Your task to perform on an android device: Go to calendar. Show me events next week Image 0: 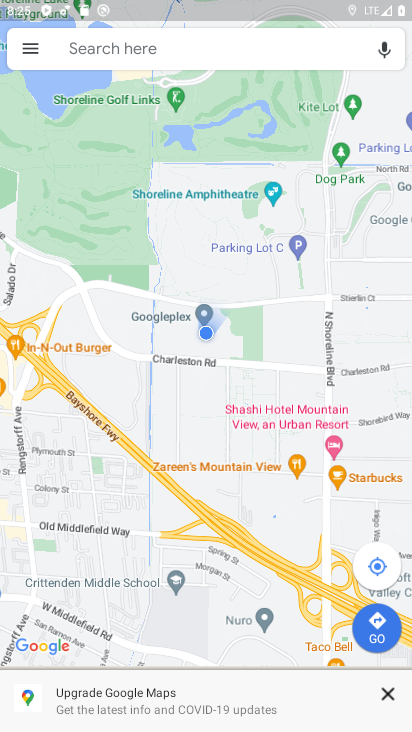
Step 0: press home button
Your task to perform on an android device: Go to calendar. Show me events next week Image 1: 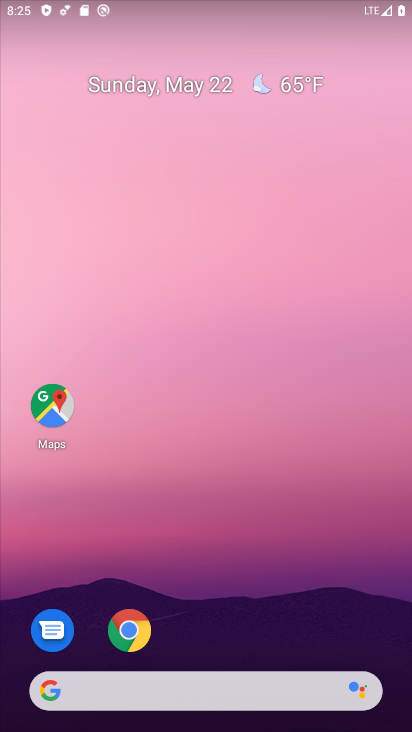
Step 1: drag from (145, 681) to (333, 181)
Your task to perform on an android device: Go to calendar. Show me events next week Image 2: 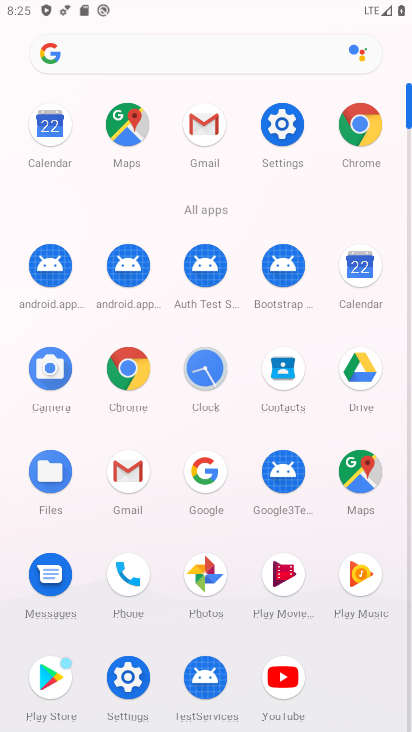
Step 2: click (369, 280)
Your task to perform on an android device: Go to calendar. Show me events next week Image 3: 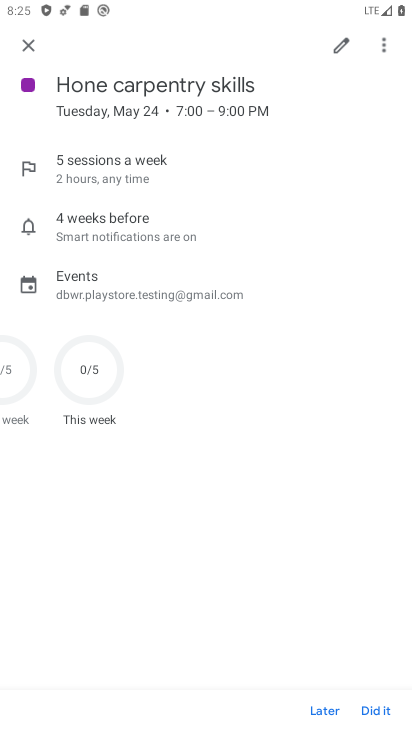
Step 3: click (26, 39)
Your task to perform on an android device: Go to calendar. Show me events next week Image 4: 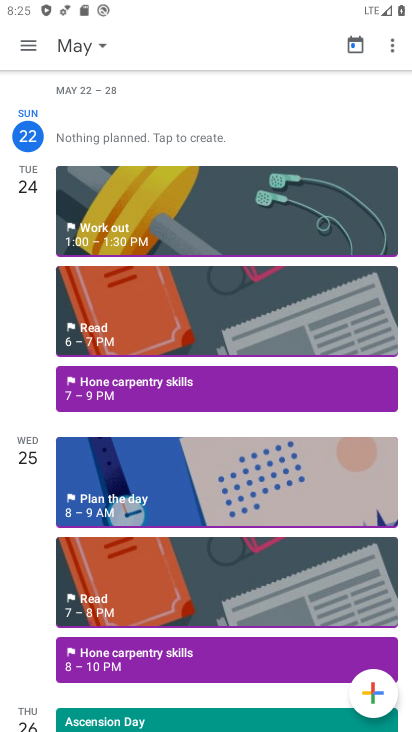
Step 4: click (66, 46)
Your task to perform on an android device: Go to calendar. Show me events next week Image 5: 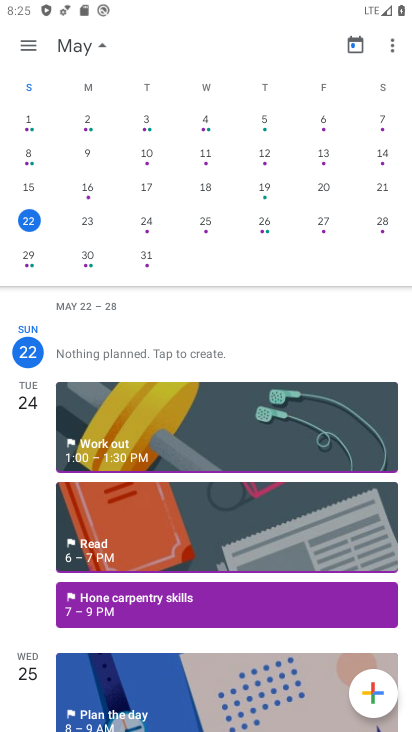
Step 5: click (28, 260)
Your task to perform on an android device: Go to calendar. Show me events next week Image 6: 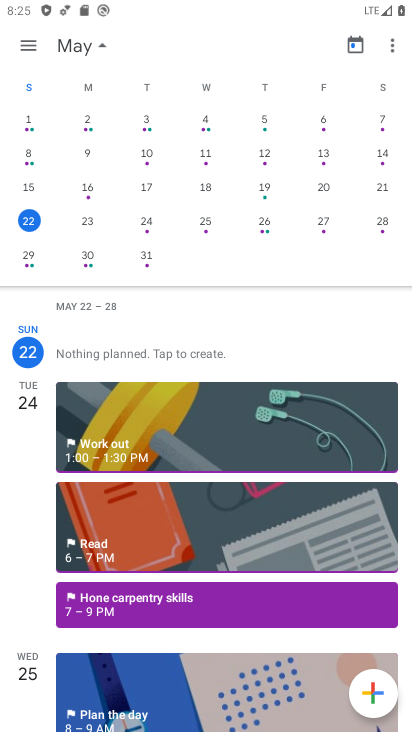
Step 6: click (32, 256)
Your task to perform on an android device: Go to calendar. Show me events next week Image 7: 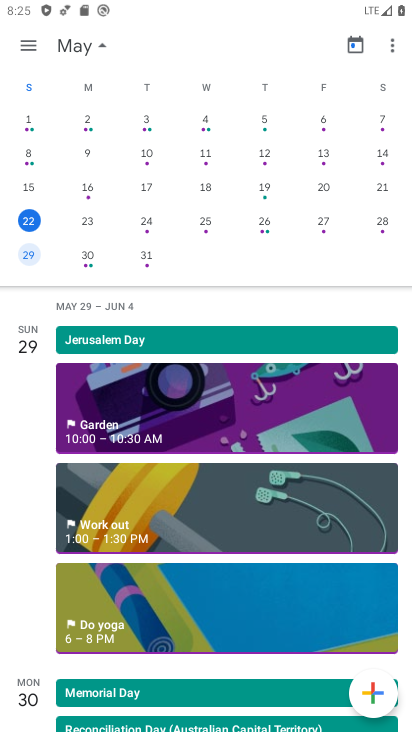
Step 7: click (33, 44)
Your task to perform on an android device: Go to calendar. Show me events next week Image 8: 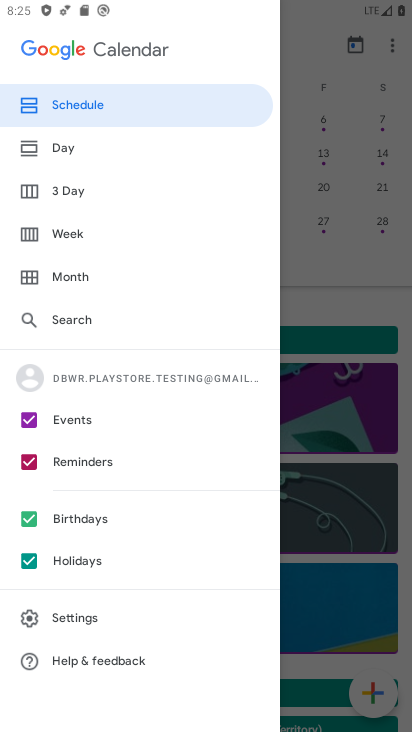
Step 8: click (88, 234)
Your task to perform on an android device: Go to calendar. Show me events next week Image 9: 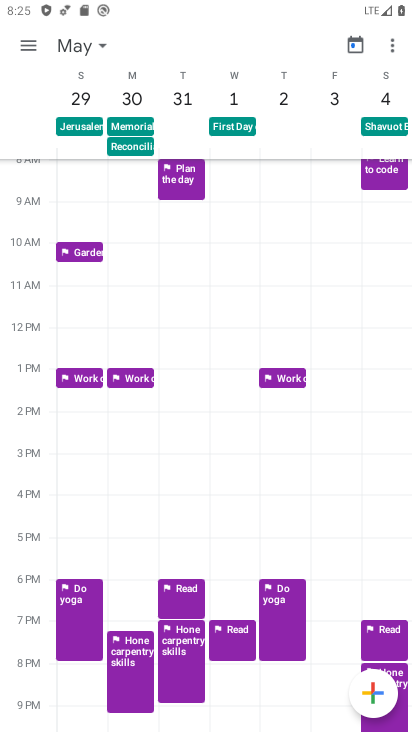
Step 9: click (26, 40)
Your task to perform on an android device: Go to calendar. Show me events next week Image 10: 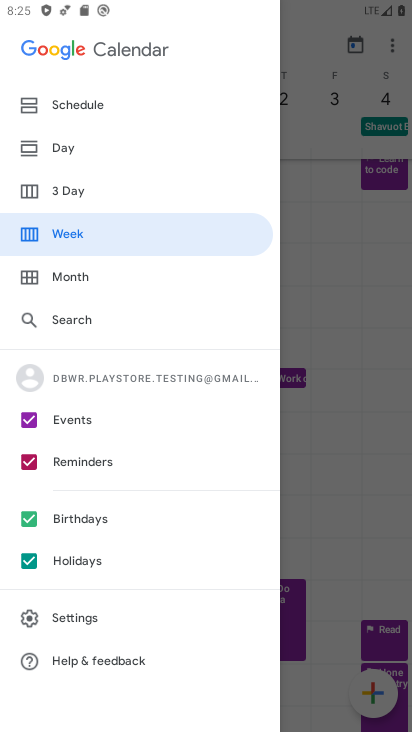
Step 10: click (71, 107)
Your task to perform on an android device: Go to calendar. Show me events next week Image 11: 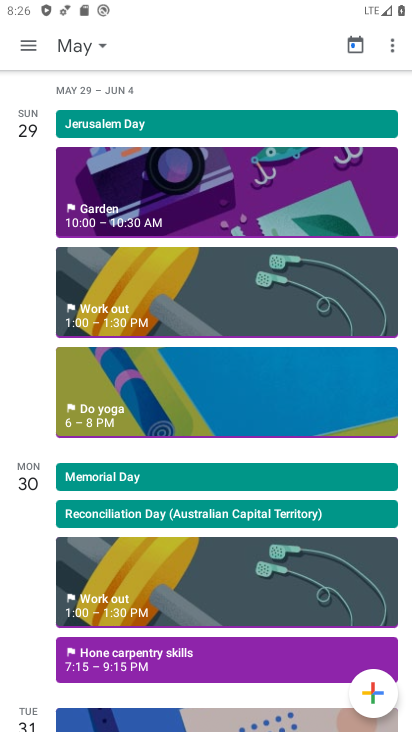
Step 11: click (217, 184)
Your task to perform on an android device: Go to calendar. Show me events next week Image 12: 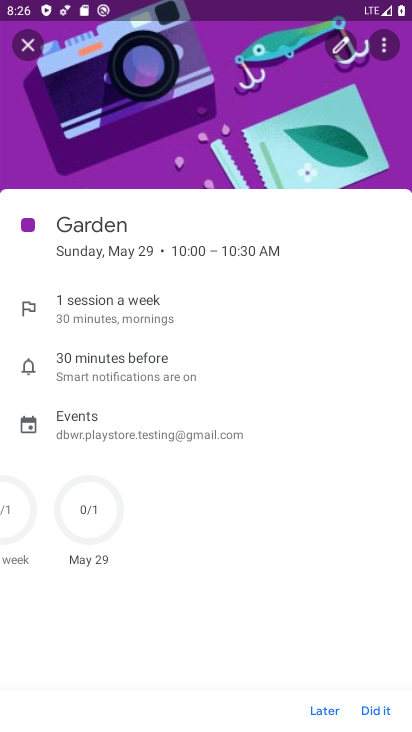
Step 12: task complete